Your task to perform on an android device: change the upload size in google photos Image 0: 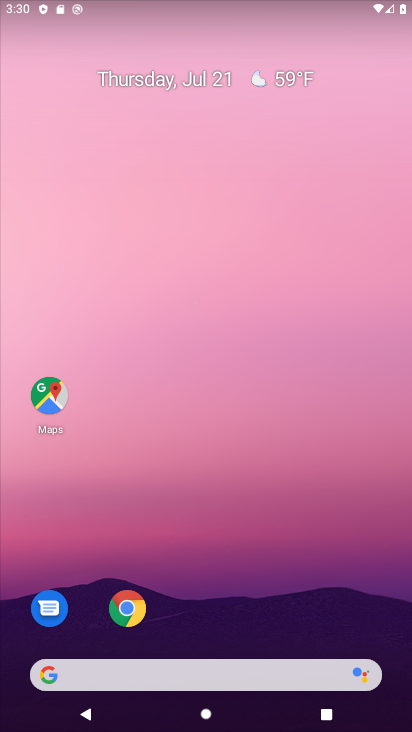
Step 0: drag from (100, 684) to (282, 103)
Your task to perform on an android device: change the upload size in google photos Image 1: 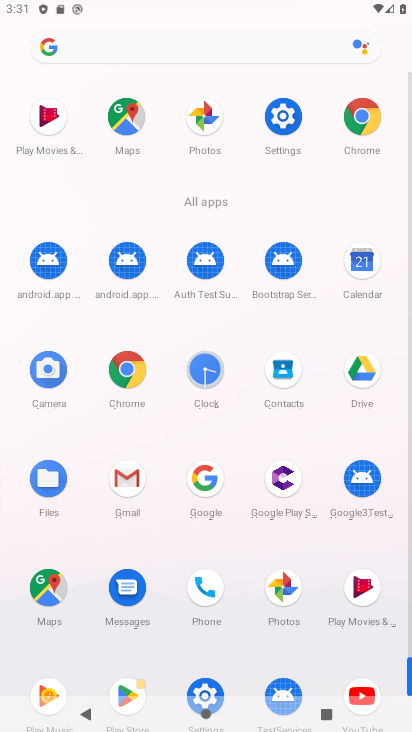
Step 1: click (290, 595)
Your task to perform on an android device: change the upload size in google photos Image 2: 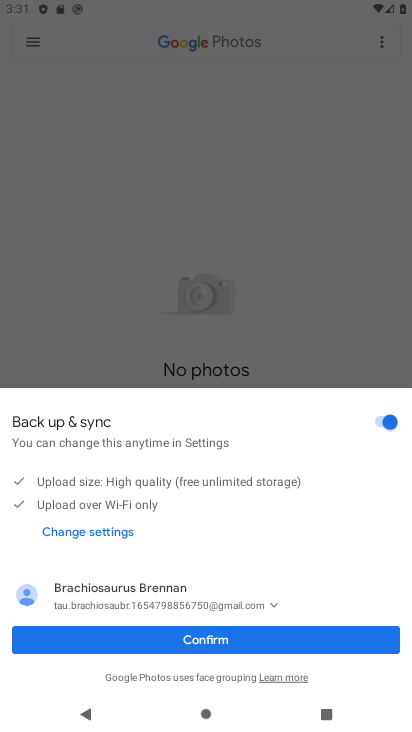
Step 2: click (275, 633)
Your task to perform on an android device: change the upload size in google photos Image 3: 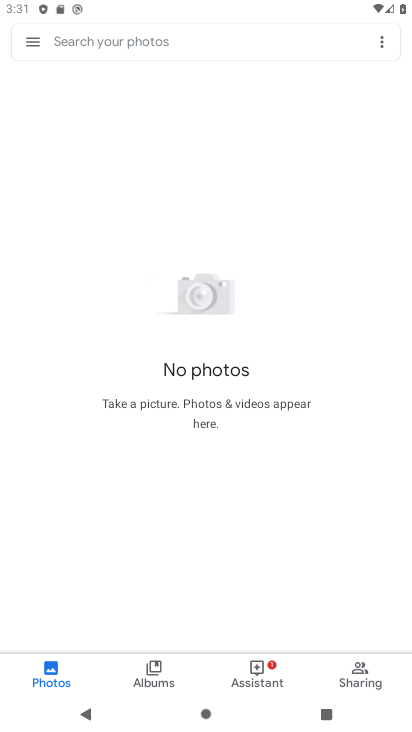
Step 3: click (33, 43)
Your task to perform on an android device: change the upload size in google photos Image 4: 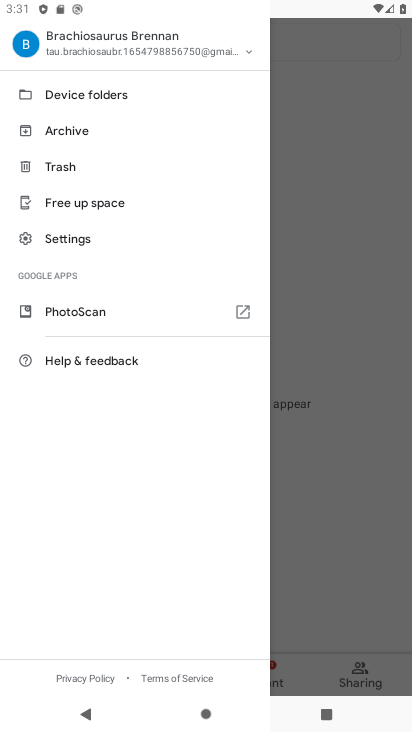
Step 4: click (66, 244)
Your task to perform on an android device: change the upload size in google photos Image 5: 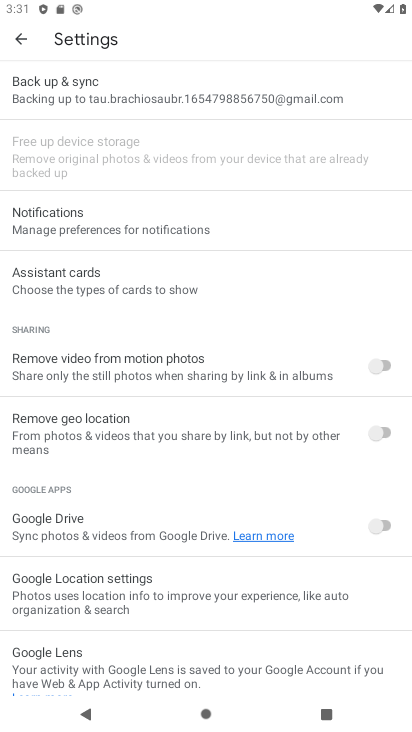
Step 5: click (161, 96)
Your task to perform on an android device: change the upload size in google photos Image 6: 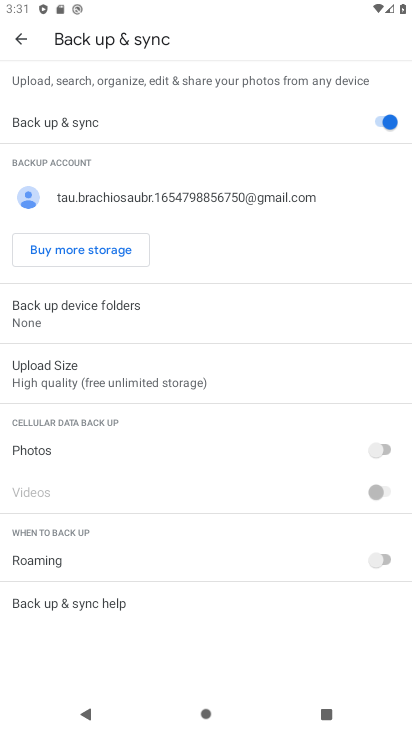
Step 6: click (143, 377)
Your task to perform on an android device: change the upload size in google photos Image 7: 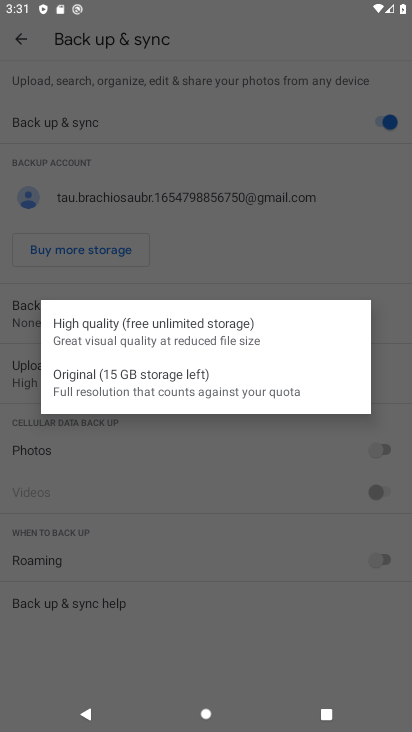
Step 7: click (100, 379)
Your task to perform on an android device: change the upload size in google photos Image 8: 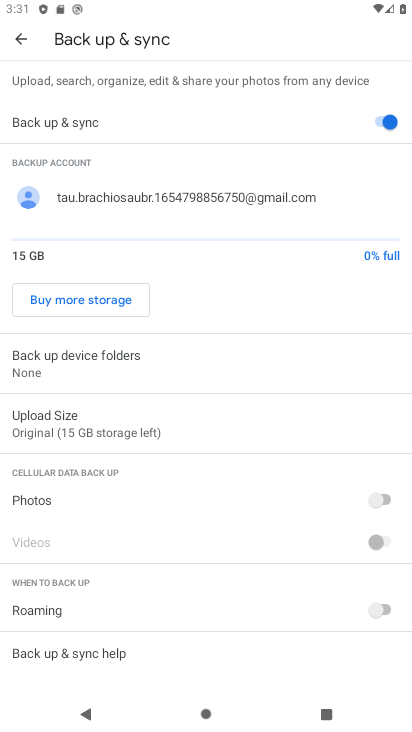
Step 8: task complete